Your task to perform on an android device: turn off picture-in-picture Image 0: 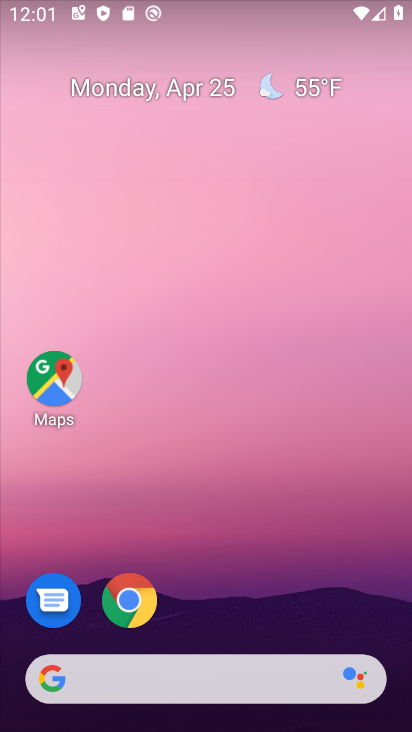
Step 0: click (126, 610)
Your task to perform on an android device: turn off picture-in-picture Image 1: 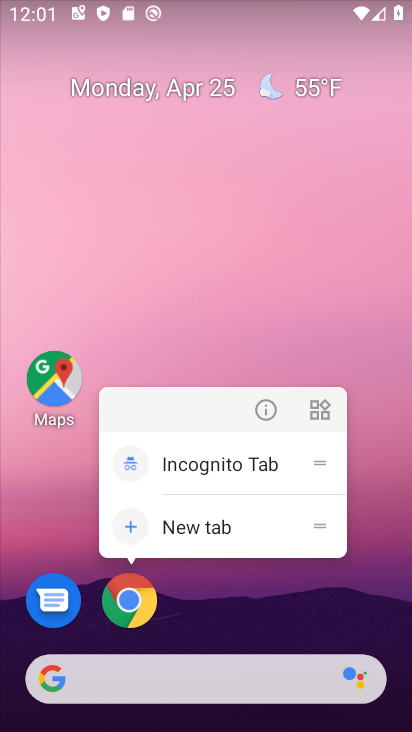
Step 1: click (273, 417)
Your task to perform on an android device: turn off picture-in-picture Image 2: 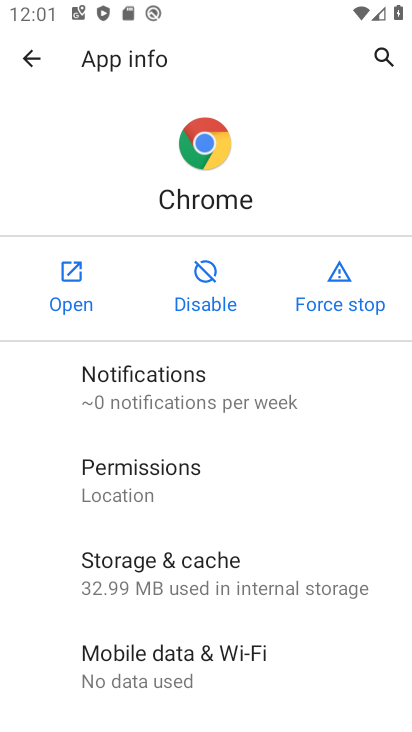
Step 2: drag from (162, 618) to (186, 7)
Your task to perform on an android device: turn off picture-in-picture Image 3: 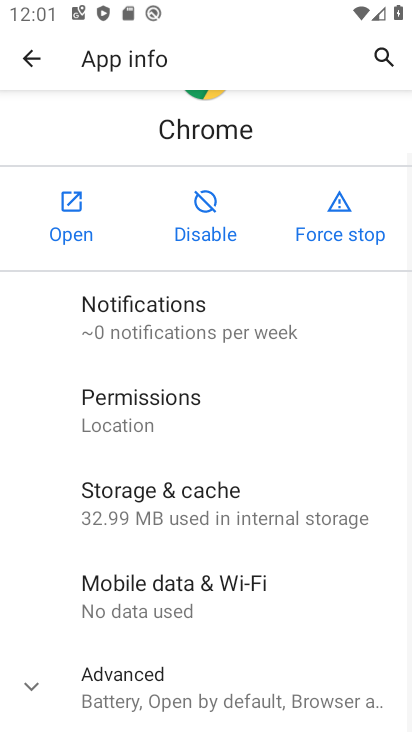
Step 3: drag from (141, 626) to (205, 131)
Your task to perform on an android device: turn off picture-in-picture Image 4: 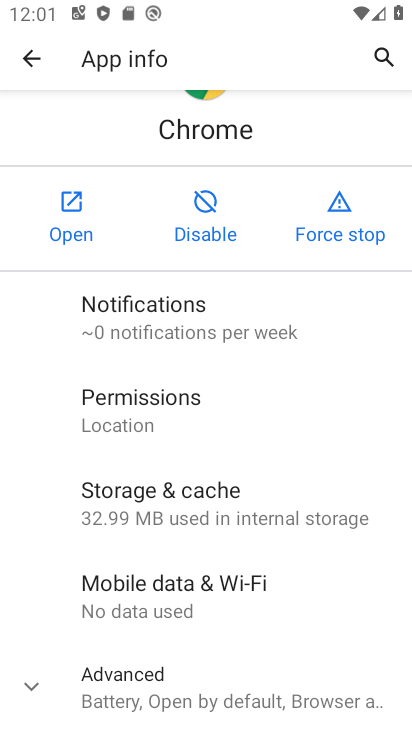
Step 4: click (107, 708)
Your task to perform on an android device: turn off picture-in-picture Image 5: 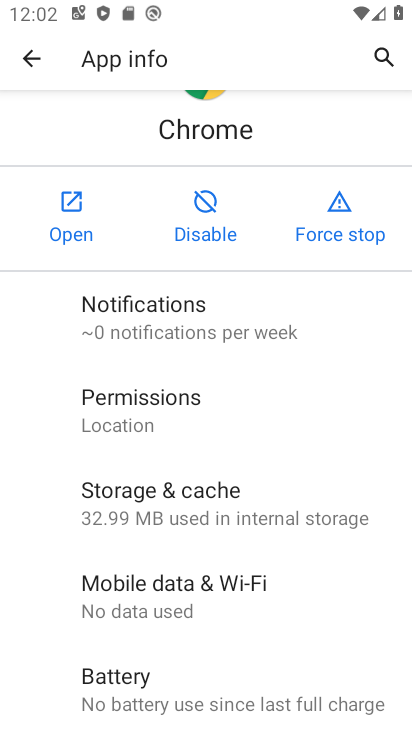
Step 5: drag from (123, 639) to (152, 238)
Your task to perform on an android device: turn off picture-in-picture Image 6: 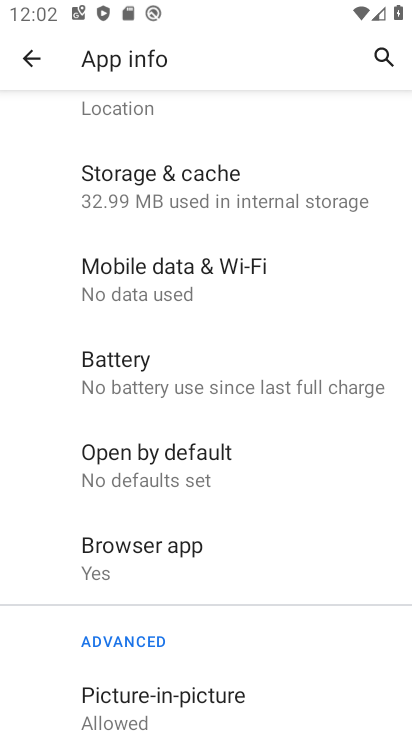
Step 6: click (184, 681)
Your task to perform on an android device: turn off picture-in-picture Image 7: 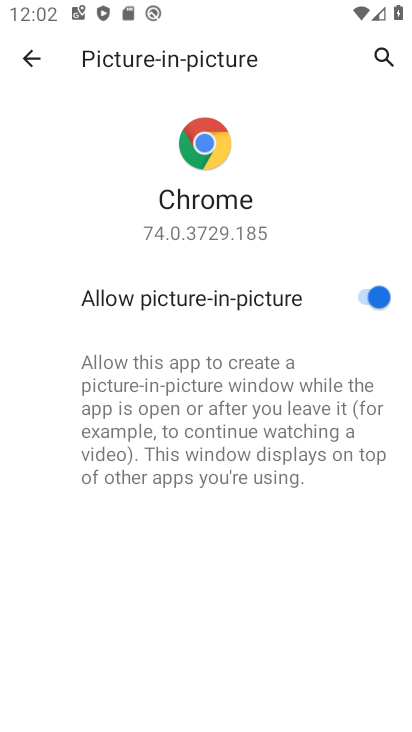
Step 7: click (371, 296)
Your task to perform on an android device: turn off picture-in-picture Image 8: 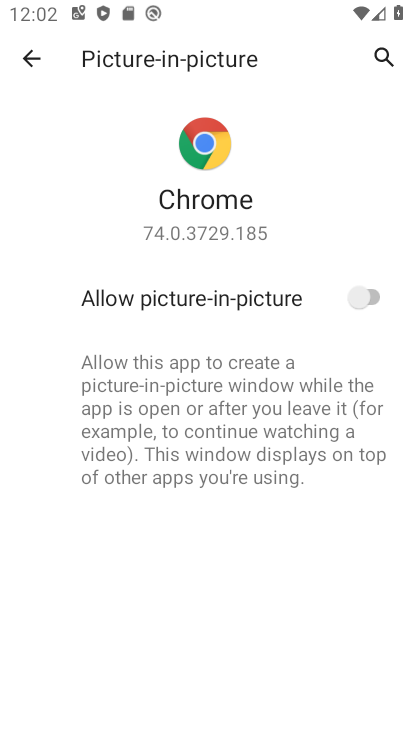
Step 8: task complete